Your task to perform on an android device: turn vacation reply on in the gmail app Image 0: 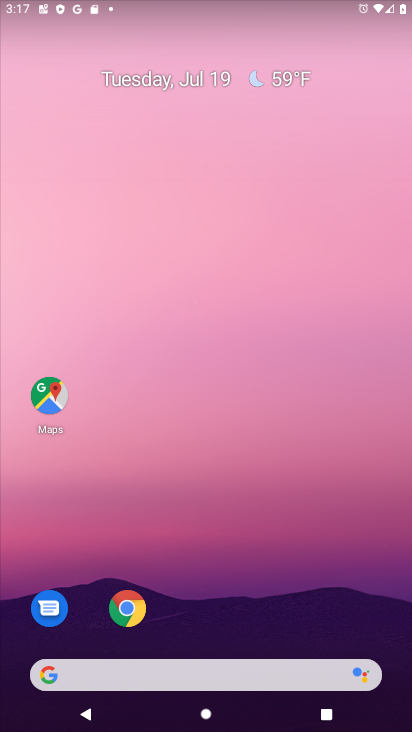
Step 0: drag from (292, 616) to (225, 102)
Your task to perform on an android device: turn vacation reply on in the gmail app Image 1: 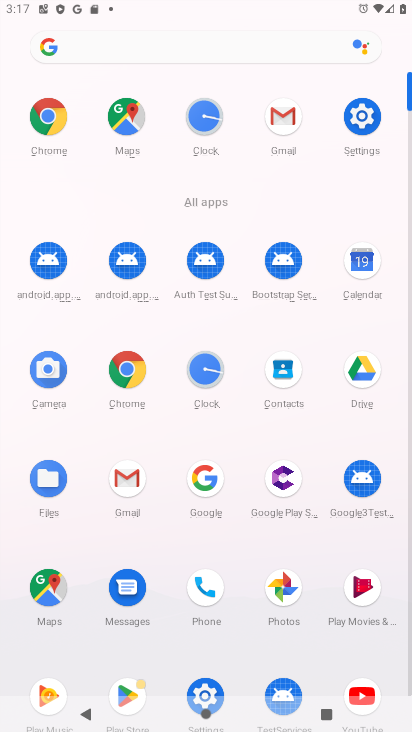
Step 1: click (285, 116)
Your task to perform on an android device: turn vacation reply on in the gmail app Image 2: 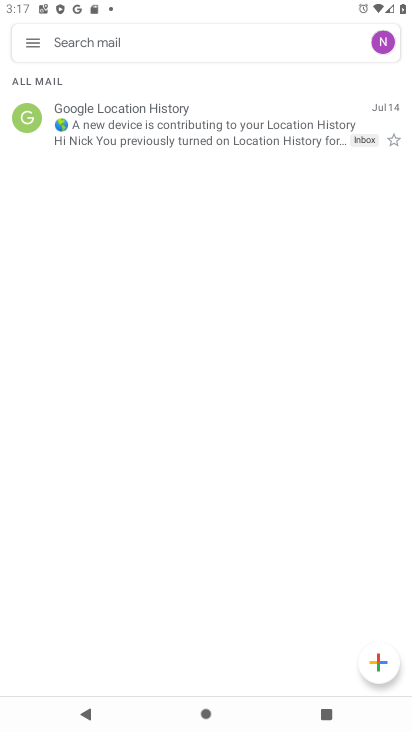
Step 2: click (32, 35)
Your task to perform on an android device: turn vacation reply on in the gmail app Image 3: 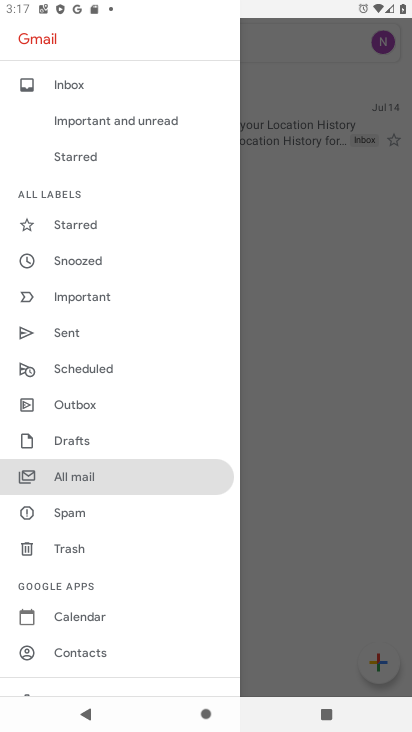
Step 3: drag from (116, 623) to (120, 255)
Your task to perform on an android device: turn vacation reply on in the gmail app Image 4: 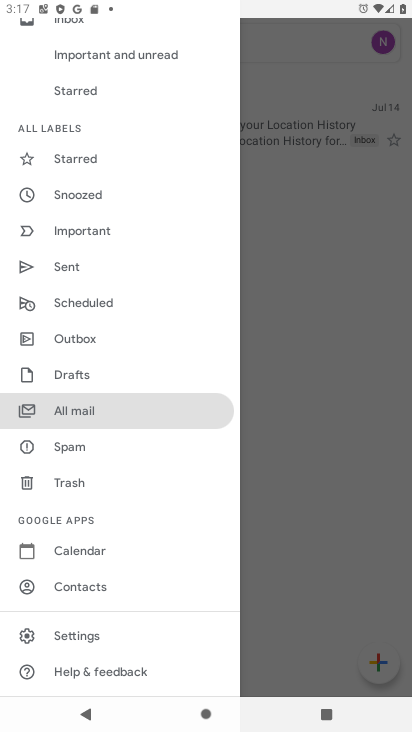
Step 4: click (113, 636)
Your task to perform on an android device: turn vacation reply on in the gmail app Image 5: 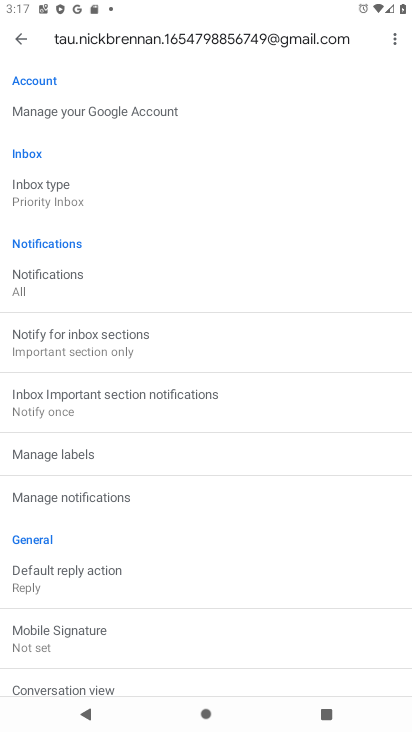
Step 5: drag from (163, 622) to (173, 304)
Your task to perform on an android device: turn vacation reply on in the gmail app Image 6: 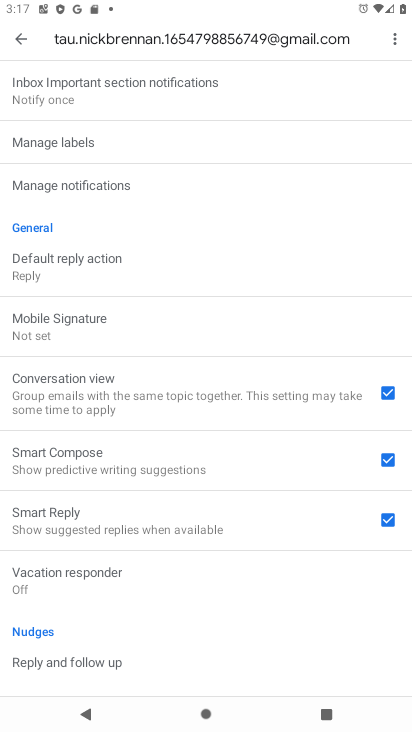
Step 6: click (169, 562)
Your task to perform on an android device: turn vacation reply on in the gmail app Image 7: 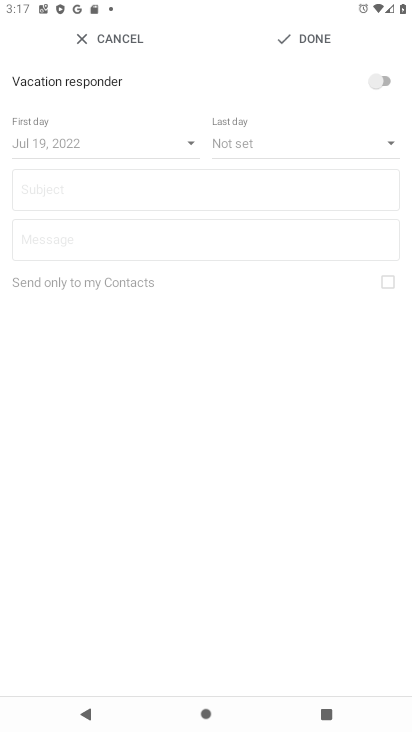
Step 7: click (384, 79)
Your task to perform on an android device: turn vacation reply on in the gmail app Image 8: 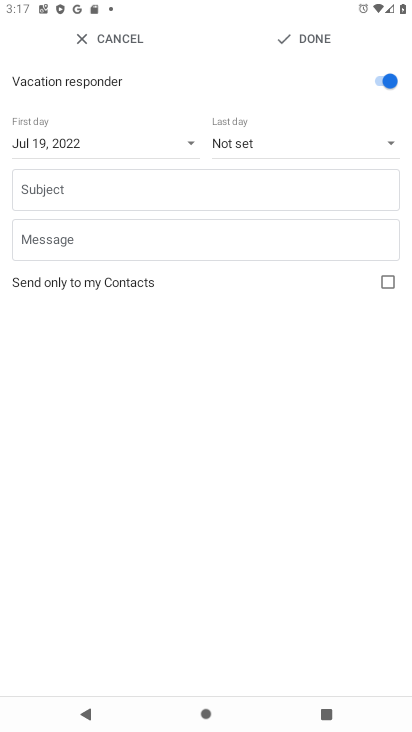
Step 8: click (361, 199)
Your task to perform on an android device: turn vacation reply on in the gmail app Image 9: 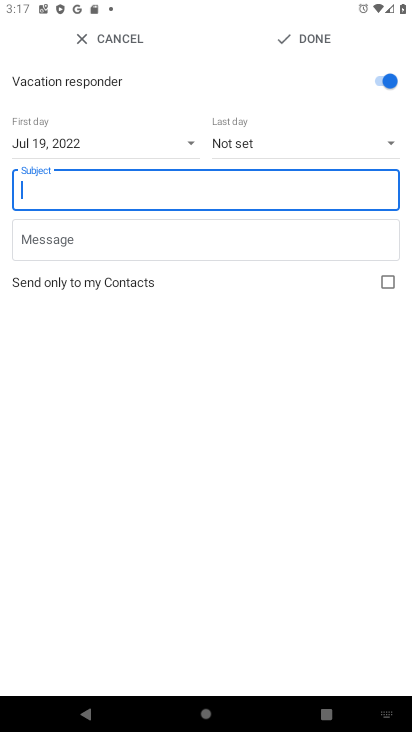
Step 9: type "bhbjh"
Your task to perform on an android device: turn vacation reply on in the gmail app Image 10: 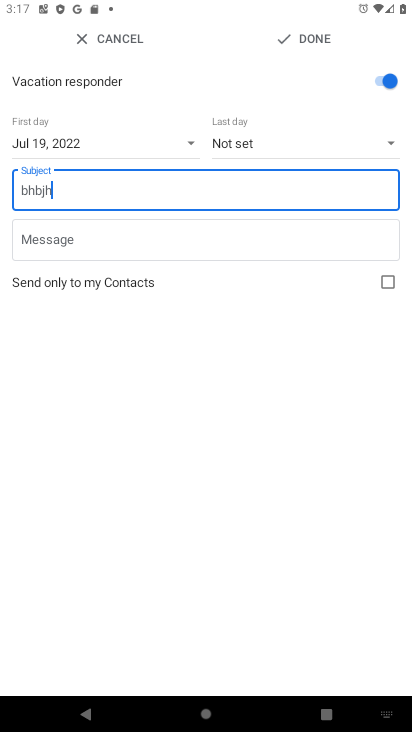
Step 10: click (316, 42)
Your task to perform on an android device: turn vacation reply on in the gmail app Image 11: 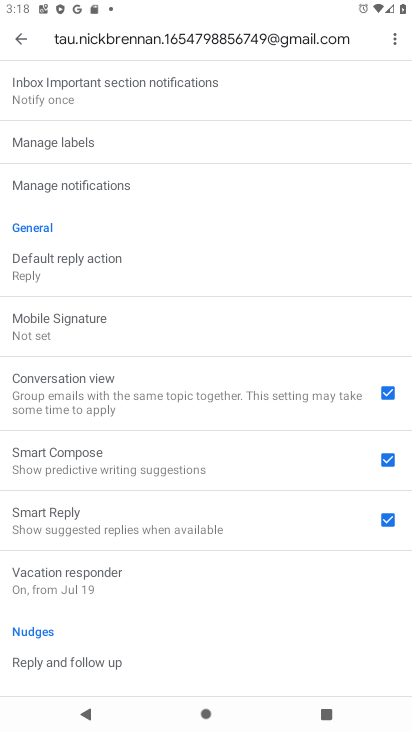
Step 11: task complete